Your task to perform on an android device: turn on wifi Image 0: 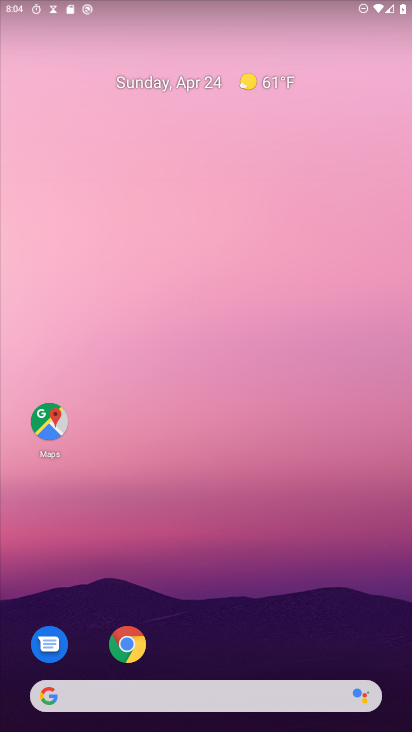
Step 0: drag from (260, 699) to (230, 113)
Your task to perform on an android device: turn on wifi Image 1: 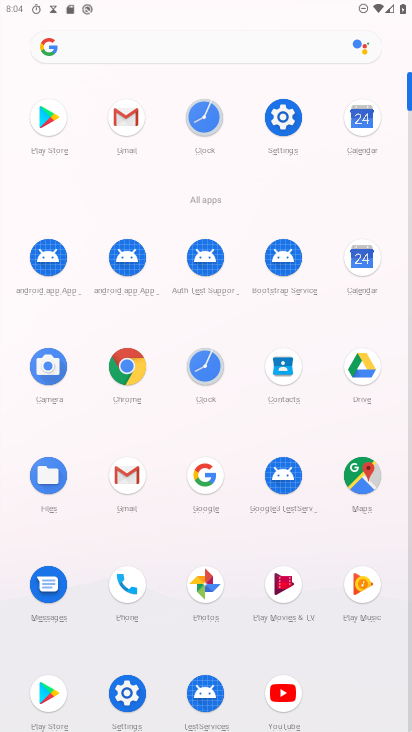
Step 1: click (292, 113)
Your task to perform on an android device: turn on wifi Image 2: 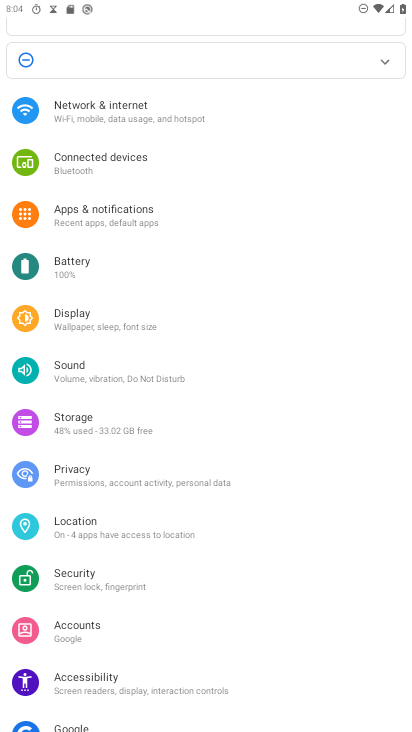
Step 2: click (148, 110)
Your task to perform on an android device: turn on wifi Image 3: 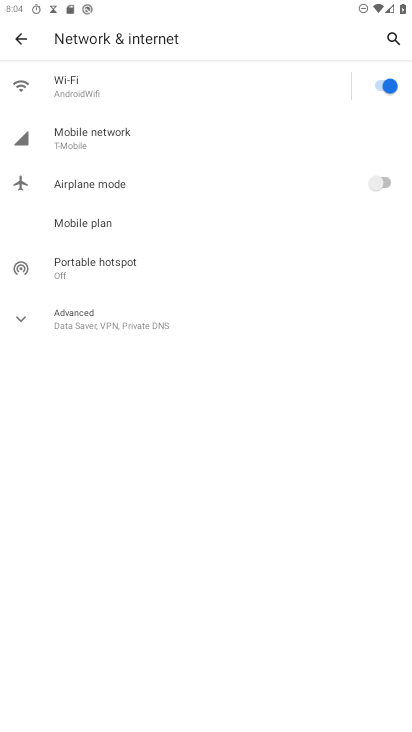
Step 3: task complete